Your task to perform on an android device: What's on my calendar tomorrow? Image 0: 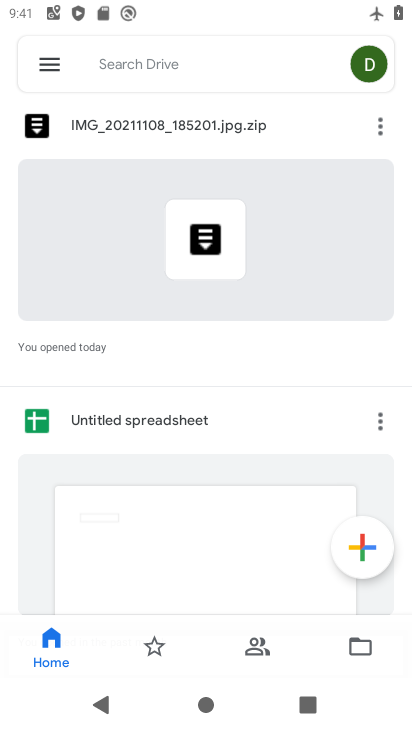
Step 0: press home button
Your task to perform on an android device: What's on my calendar tomorrow? Image 1: 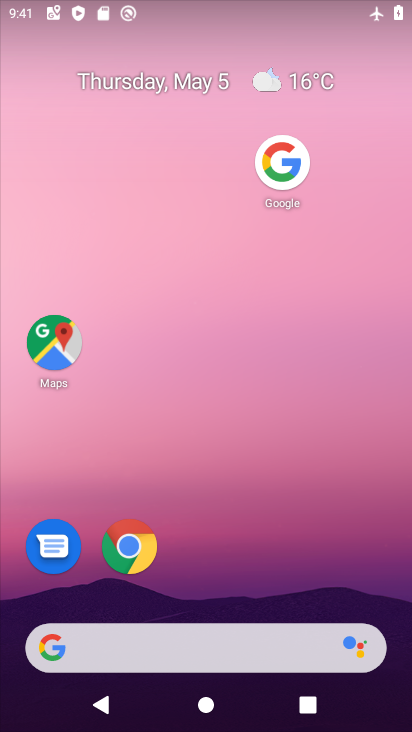
Step 1: drag from (189, 643) to (254, 85)
Your task to perform on an android device: What's on my calendar tomorrow? Image 2: 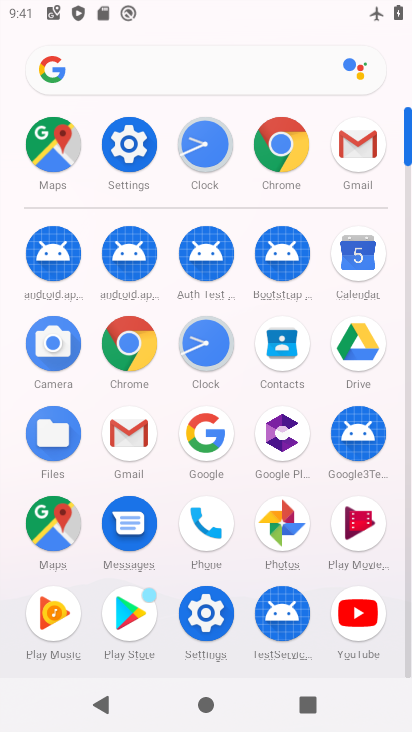
Step 2: click (349, 262)
Your task to perform on an android device: What's on my calendar tomorrow? Image 3: 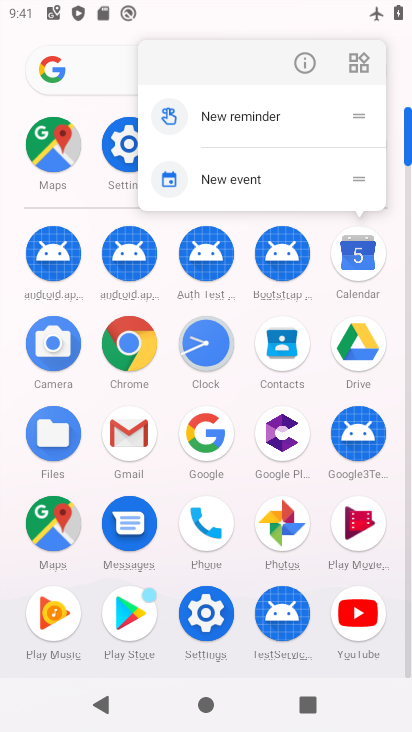
Step 3: click (362, 266)
Your task to perform on an android device: What's on my calendar tomorrow? Image 4: 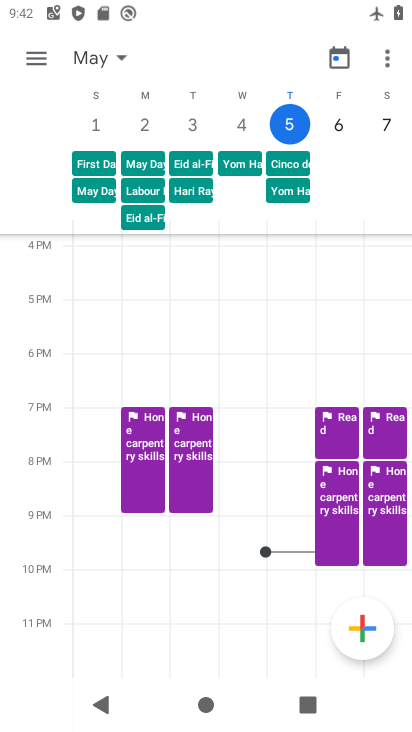
Step 4: click (88, 56)
Your task to perform on an android device: What's on my calendar tomorrow? Image 5: 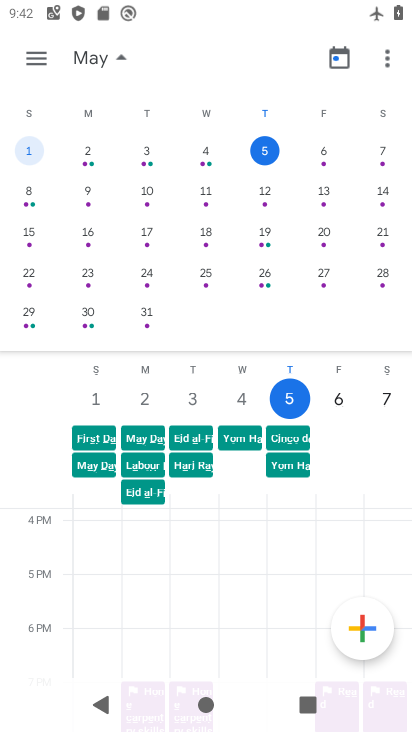
Step 5: click (324, 150)
Your task to perform on an android device: What's on my calendar tomorrow? Image 6: 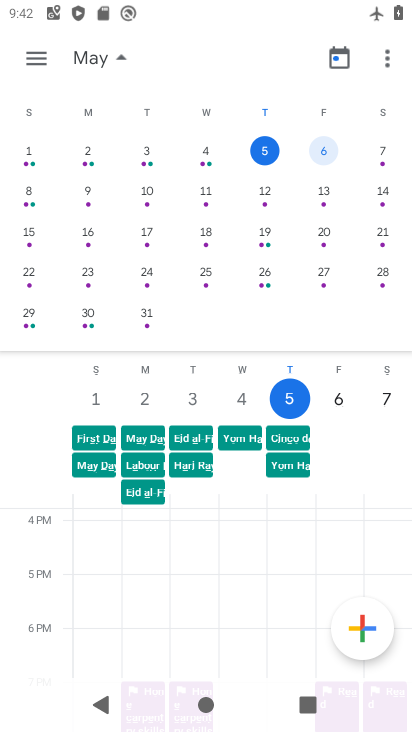
Step 6: click (38, 55)
Your task to perform on an android device: What's on my calendar tomorrow? Image 7: 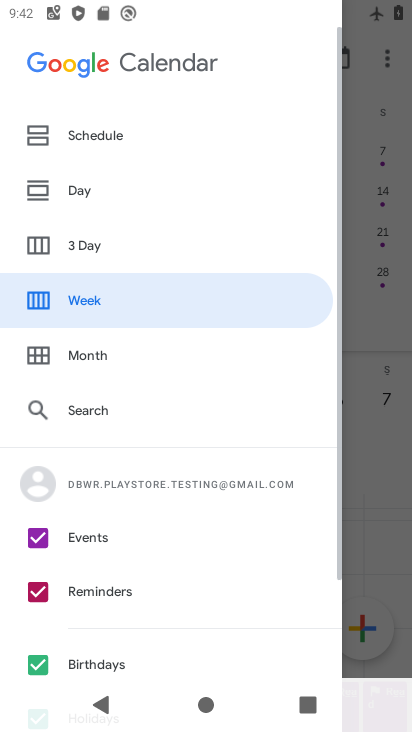
Step 7: click (110, 133)
Your task to perform on an android device: What's on my calendar tomorrow? Image 8: 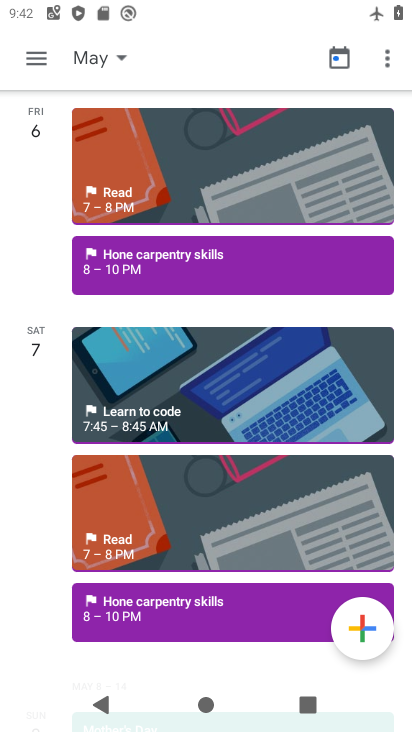
Step 8: click (163, 266)
Your task to perform on an android device: What's on my calendar tomorrow? Image 9: 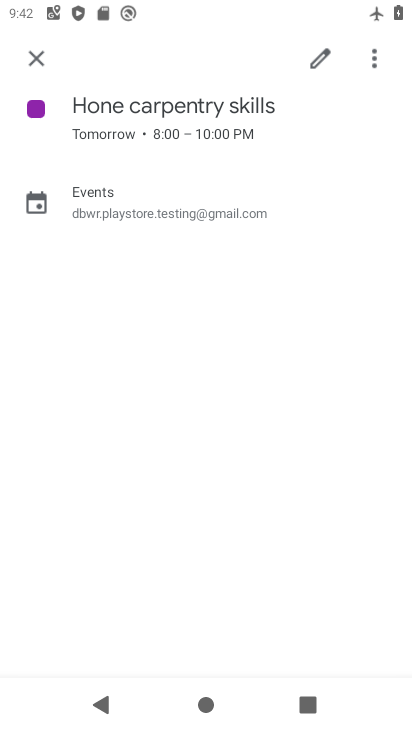
Step 9: task complete